Your task to perform on an android device: manage bookmarks in the chrome app Image 0: 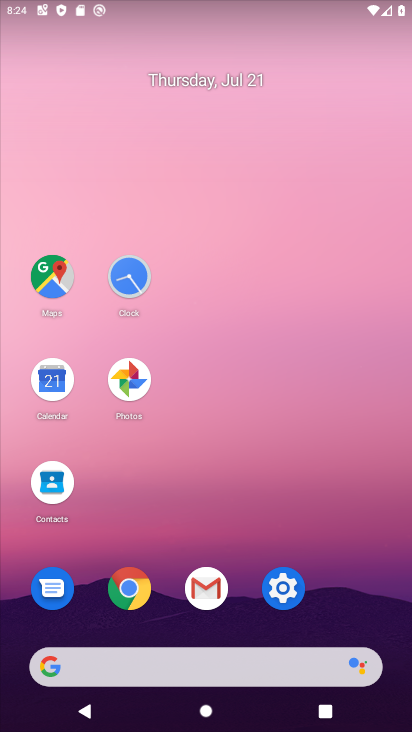
Step 0: click (129, 583)
Your task to perform on an android device: manage bookmarks in the chrome app Image 1: 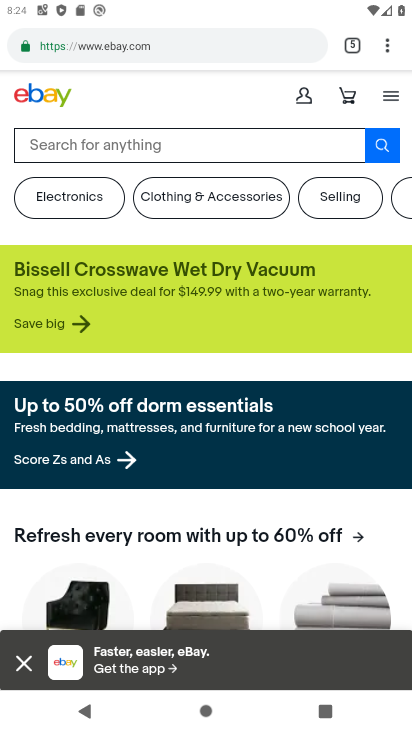
Step 1: click (389, 37)
Your task to perform on an android device: manage bookmarks in the chrome app Image 2: 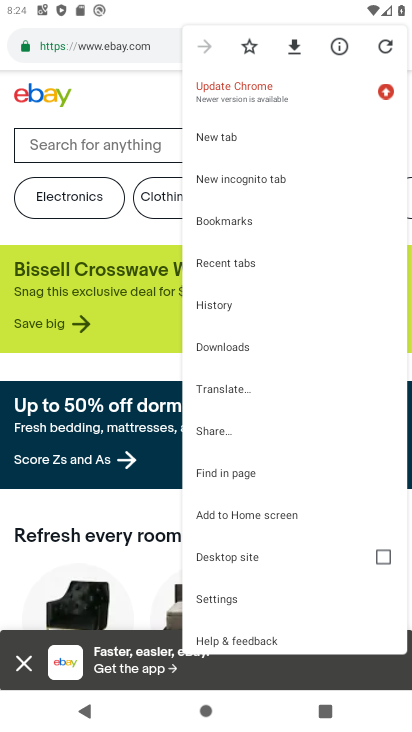
Step 2: click (230, 221)
Your task to perform on an android device: manage bookmarks in the chrome app Image 3: 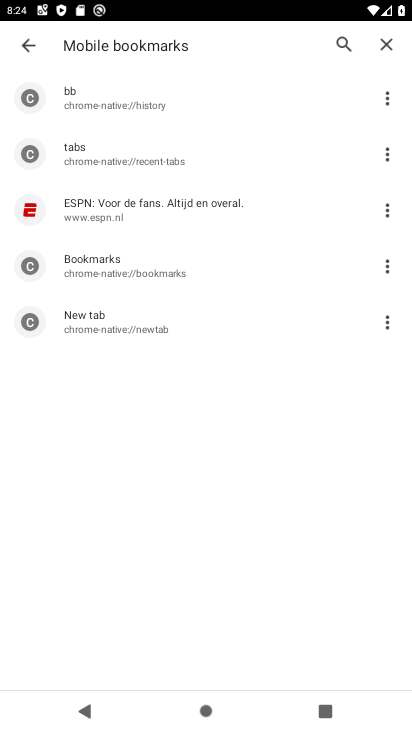
Step 3: click (387, 92)
Your task to perform on an android device: manage bookmarks in the chrome app Image 4: 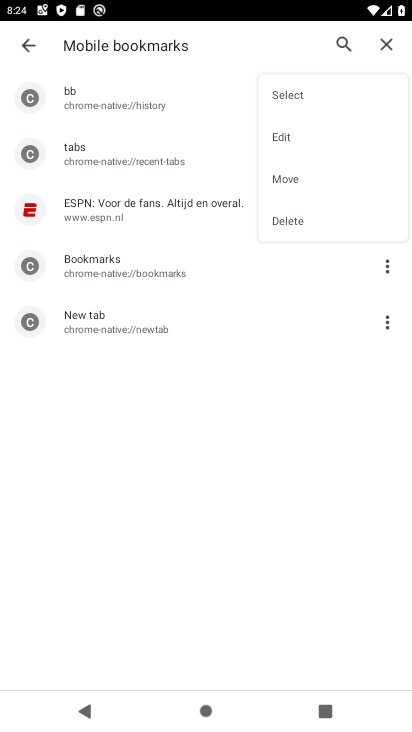
Step 4: click (292, 137)
Your task to perform on an android device: manage bookmarks in the chrome app Image 5: 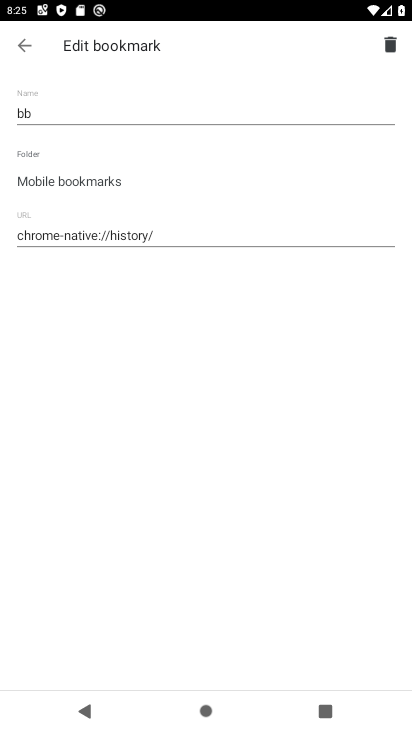
Step 5: task complete